Your task to perform on an android device: toggle improve location accuracy Image 0: 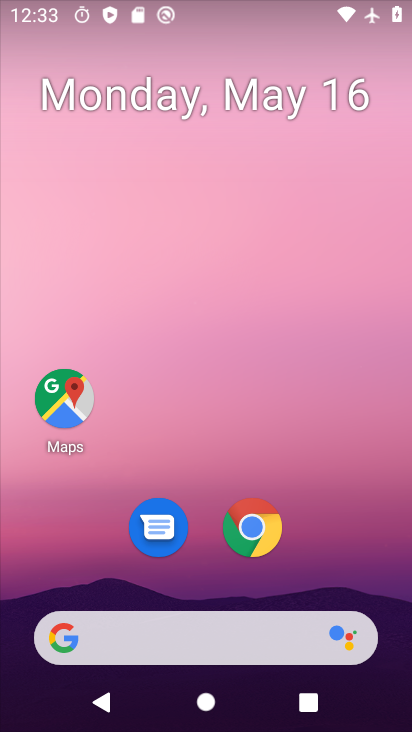
Step 0: drag from (177, 641) to (354, 101)
Your task to perform on an android device: toggle improve location accuracy Image 1: 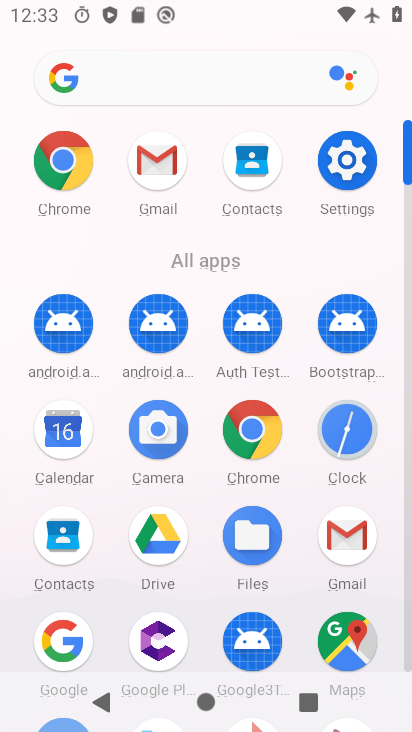
Step 1: click (345, 160)
Your task to perform on an android device: toggle improve location accuracy Image 2: 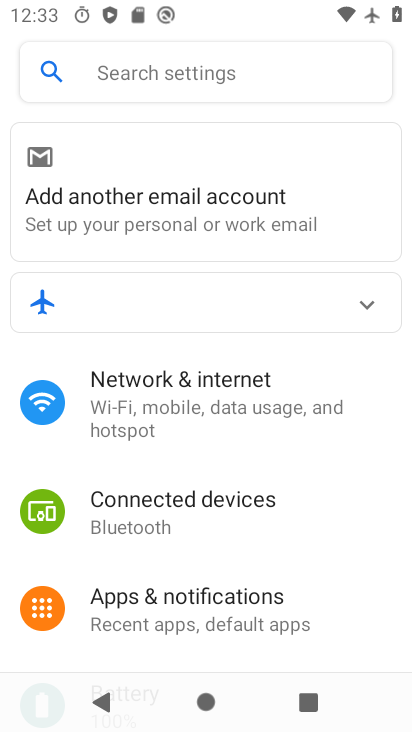
Step 2: drag from (206, 638) to (286, 334)
Your task to perform on an android device: toggle improve location accuracy Image 3: 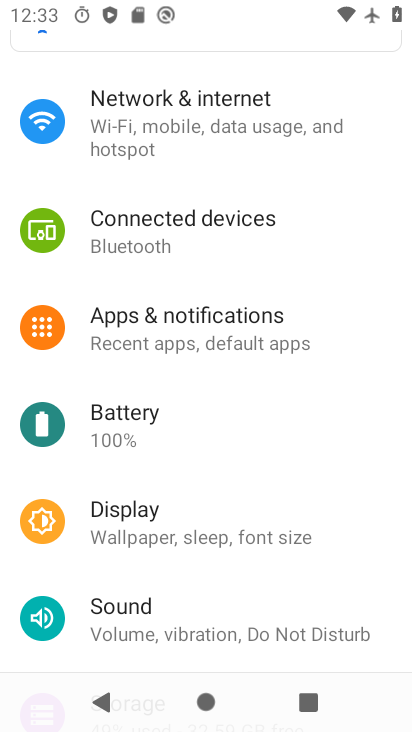
Step 3: drag from (228, 587) to (372, 162)
Your task to perform on an android device: toggle improve location accuracy Image 4: 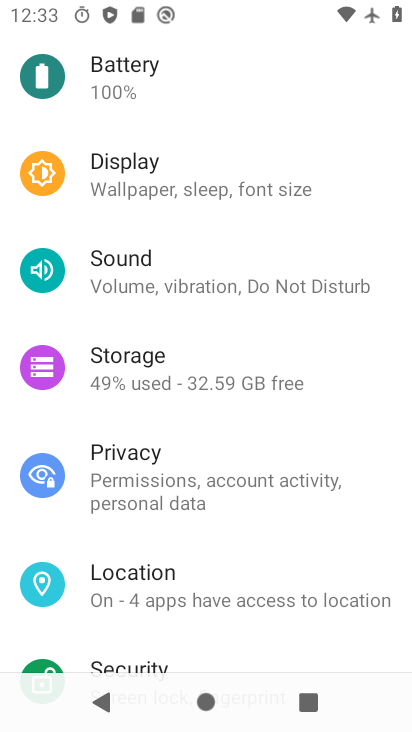
Step 4: click (182, 590)
Your task to perform on an android device: toggle improve location accuracy Image 5: 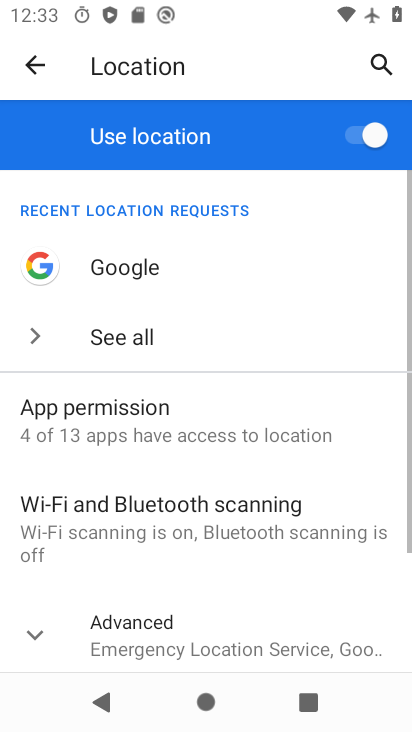
Step 5: drag from (211, 525) to (322, 257)
Your task to perform on an android device: toggle improve location accuracy Image 6: 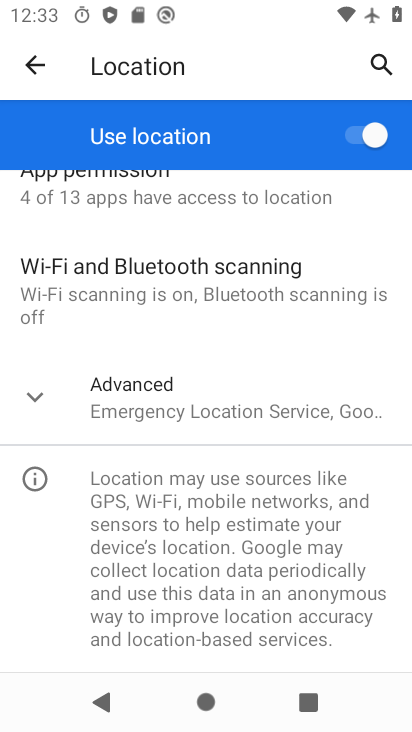
Step 6: click (177, 410)
Your task to perform on an android device: toggle improve location accuracy Image 7: 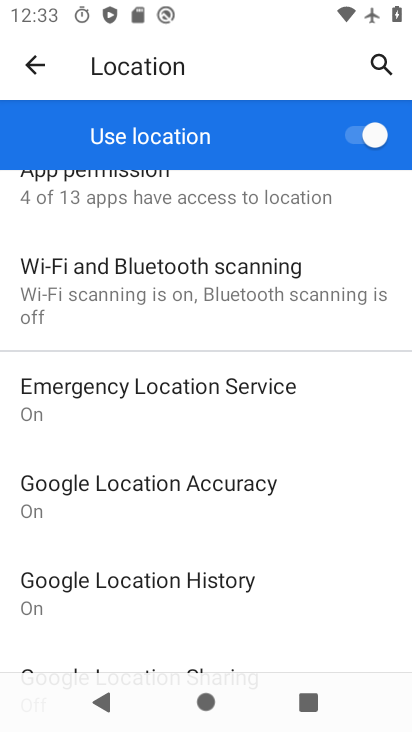
Step 7: click (183, 485)
Your task to perform on an android device: toggle improve location accuracy Image 8: 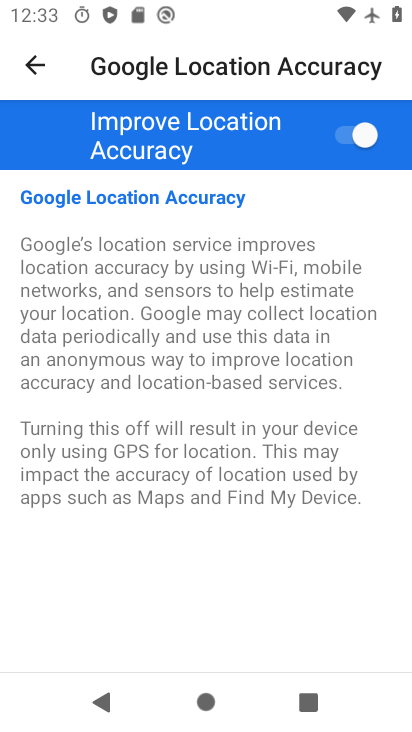
Step 8: click (346, 135)
Your task to perform on an android device: toggle improve location accuracy Image 9: 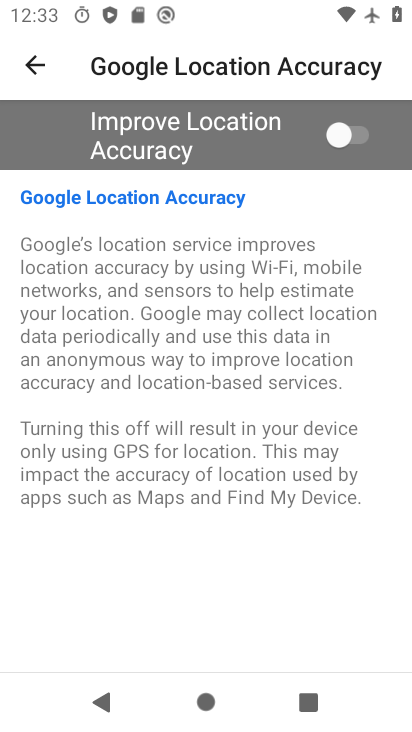
Step 9: task complete